Your task to perform on an android device: Play the last video I watched on Youtube Image 0: 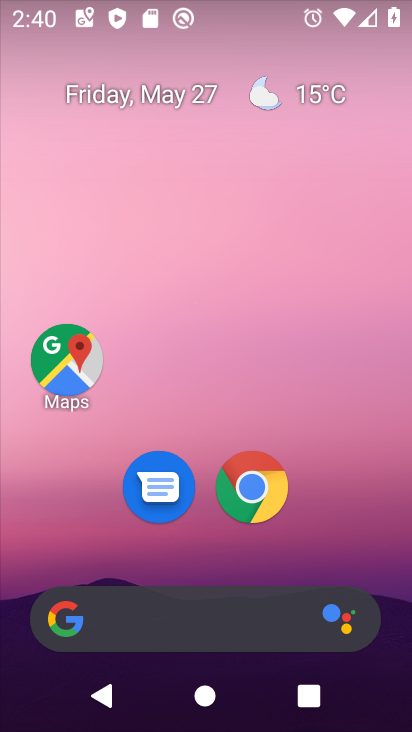
Step 0: drag from (222, 568) to (190, 100)
Your task to perform on an android device: Play the last video I watched on Youtube Image 1: 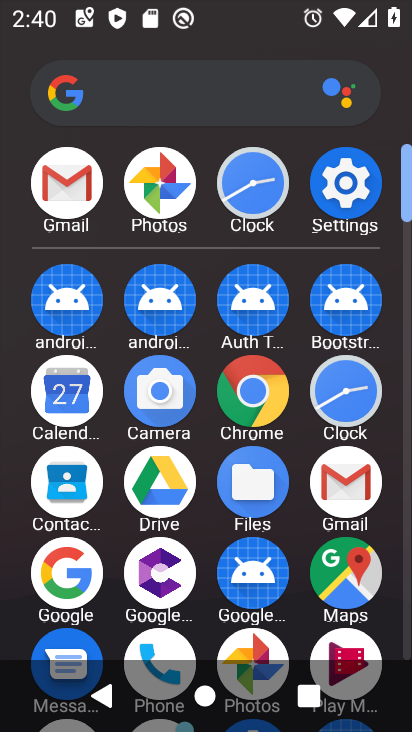
Step 1: drag from (209, 619) to (231, 149)
Your task to perform on an android device: Play the last video I watched on Youtube Image 2: 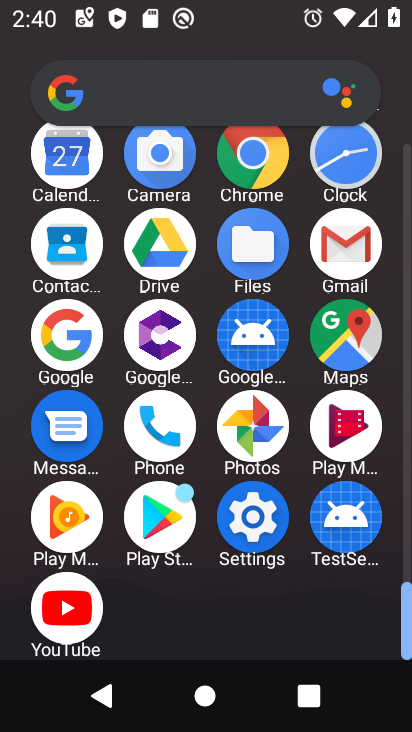
Step 2: click (69, 631)
Your task to perform on an android device: Play the last video I watched on Youtube Image 3: 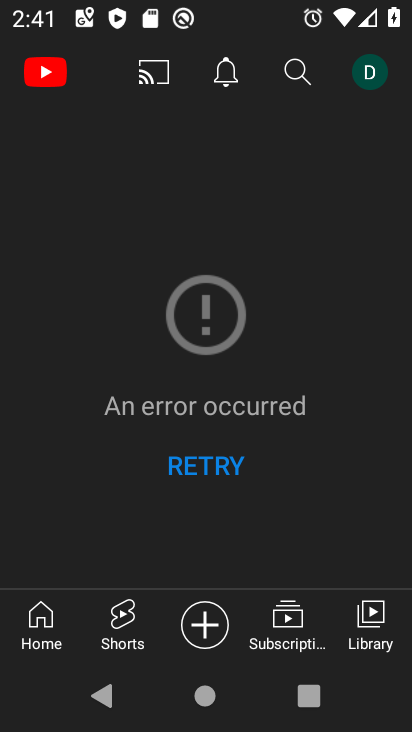
Step 3: task complete